Your task to perform on an android device: change timer sound Image 0: 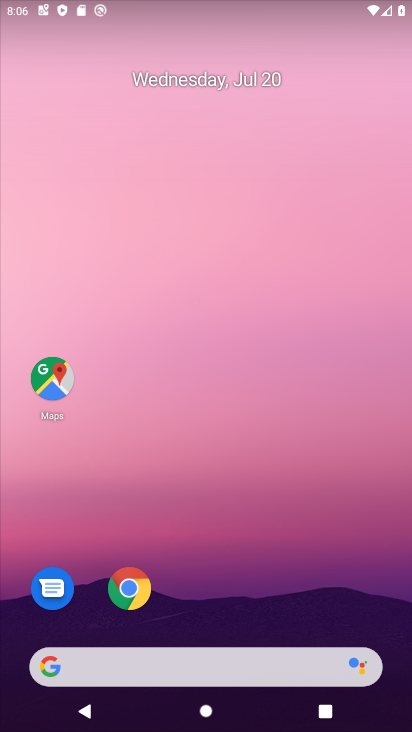
Step 0: drag from (281, 692) to (372, 45)
Your task to perform on an android device: change timer sound Image 1: 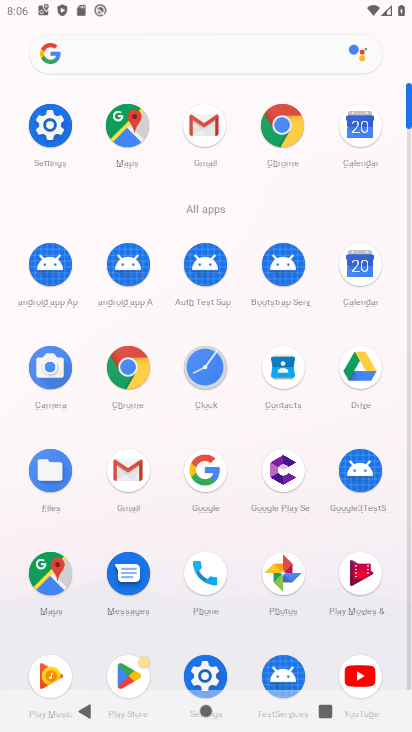
Step 1: click (230, 356)
Your task to perform on an android device: change timer sound Image 2: 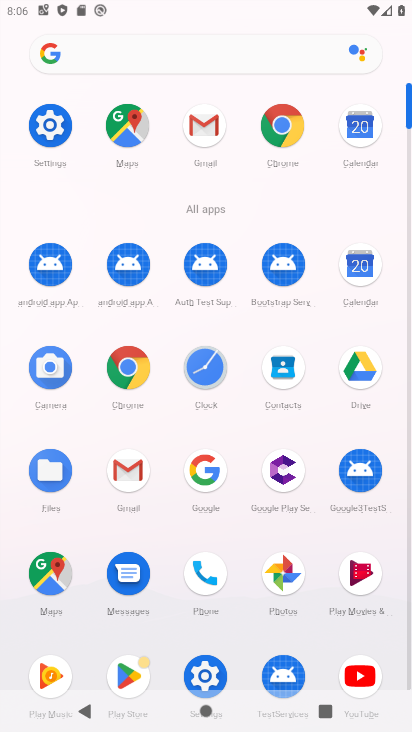
Step 2: click (230, 356)
Your task to perform on an android device: change timer sound Image 3: 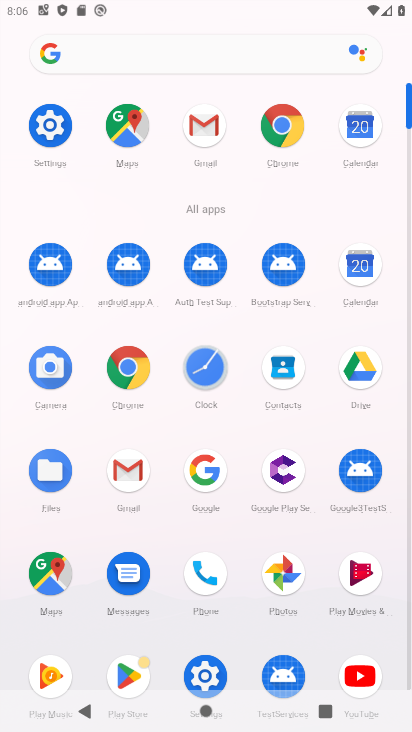
Step 3: click (230, 356)
Your task to perform on an android device: change timer sound Image 4: 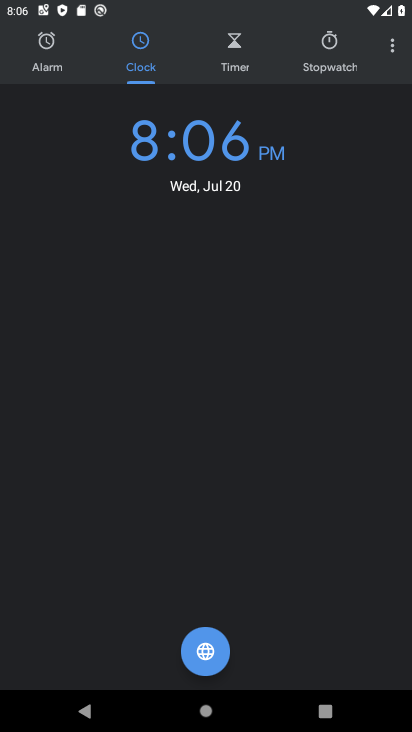
Step 4: click (391, 38)
Your task to perform on an android device: change timer sound Image 5: 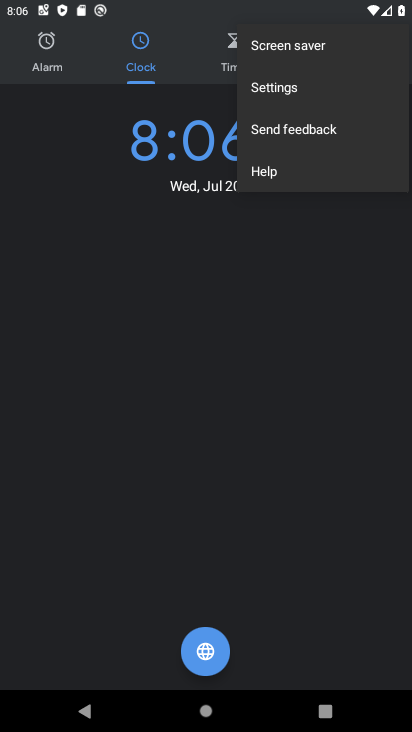
Step 5: click (278, 94)
Your task to perform on an android device: change timer sound Image 6: 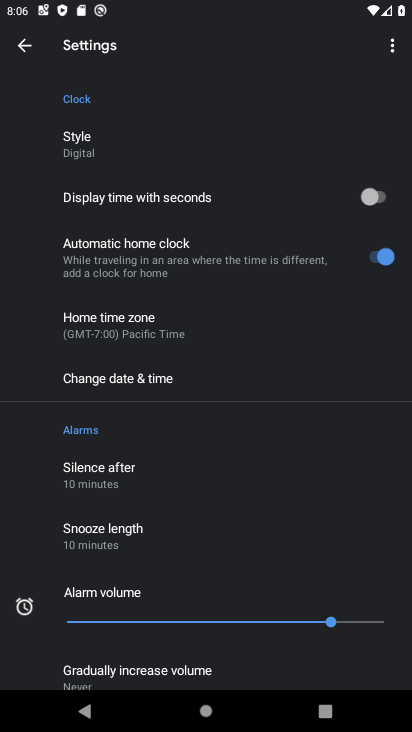
Step 6: drag from (172, 648) to (356, 0)
Your task to perform on an android device: change timer sound Image 7: 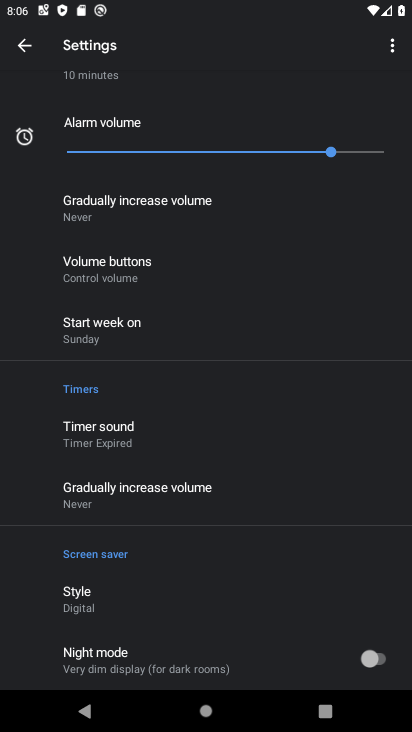
Step 7: click (161, 427)
Your task to perform on an android device: change timer sound Image 8: 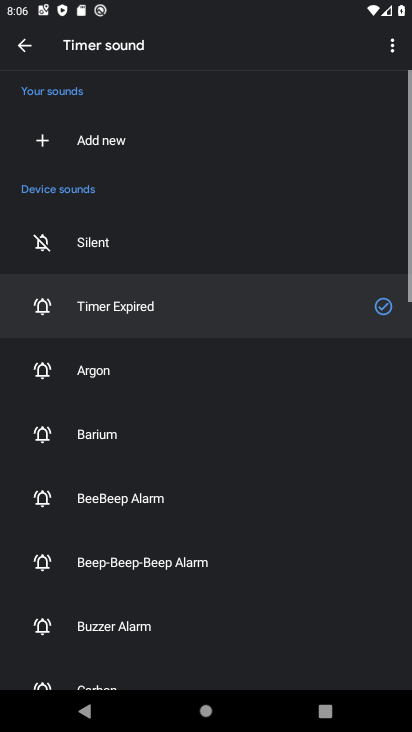
Step 8: click (150, 498)
Your task to perform on an android device: change timer sound Image 9: 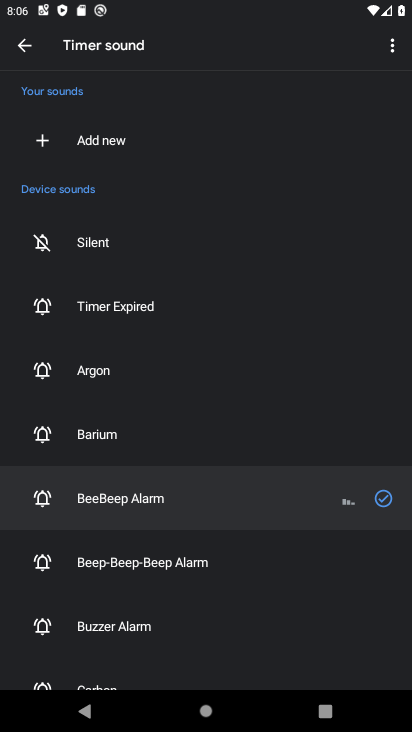
Step 9: task complete